Your task to perform on an android device: turn off data saver in the chrome app Image 0: 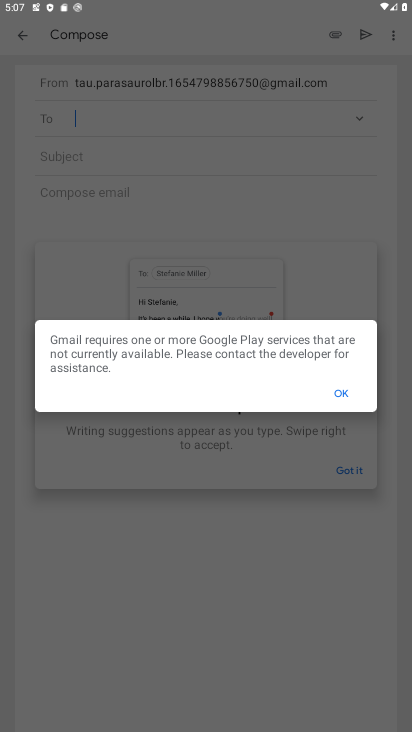
Step 0: press home button
Your task to perform on an android device: turn off data saver in the chrome app Image 1: 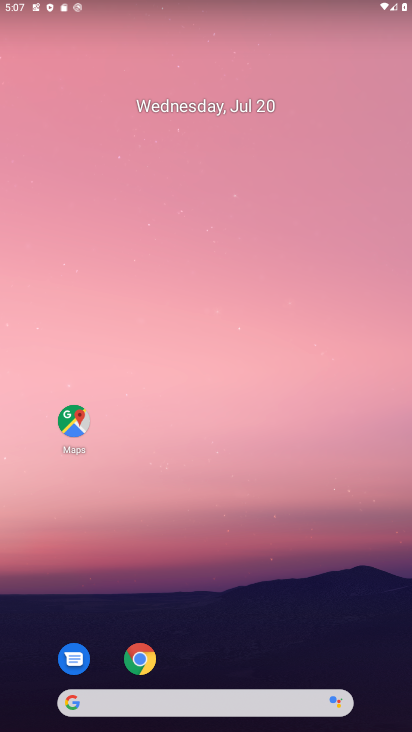
Step 1: click (139, 665)
Your task to perform on an android device: turn off data saver in the chrome app Image 2: 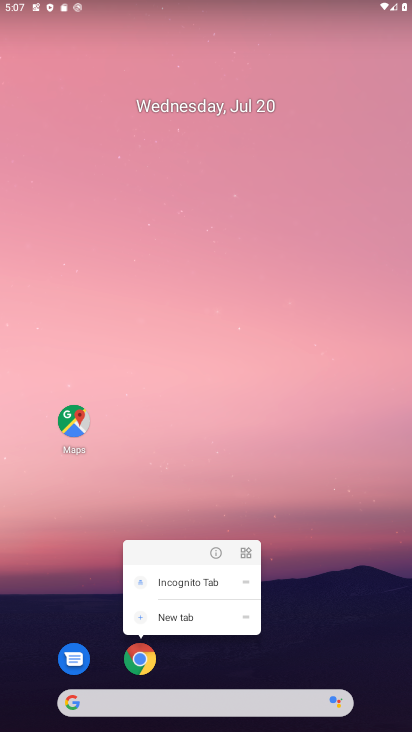
Step 2: click (139, 657)
Your task to perform on an android device: turn off data saver in the chrome app Image 3: 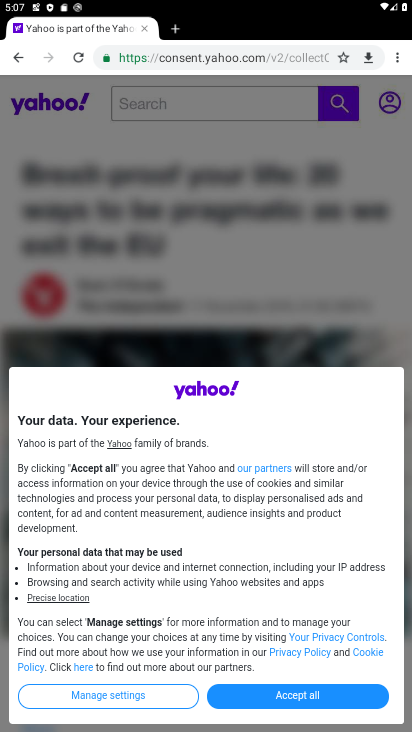
Step 3: click (391, 59)
Your task to perform on an android device: turn off data saver in the chrome app Image 4: 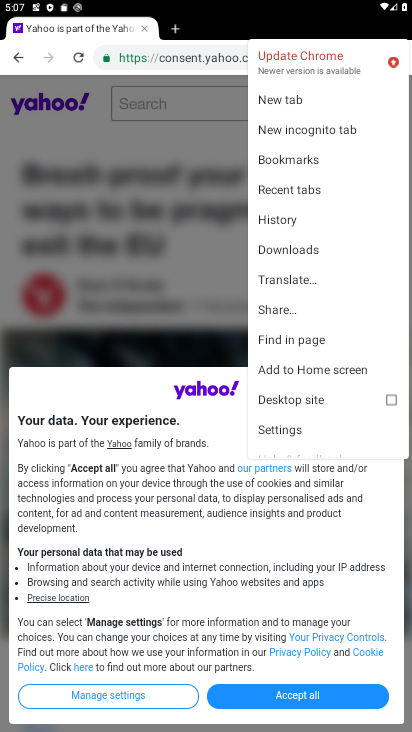
Step 4: click (273, 426)
Your task to perform on an android device: turn off data saver in the chrome app Image 5: 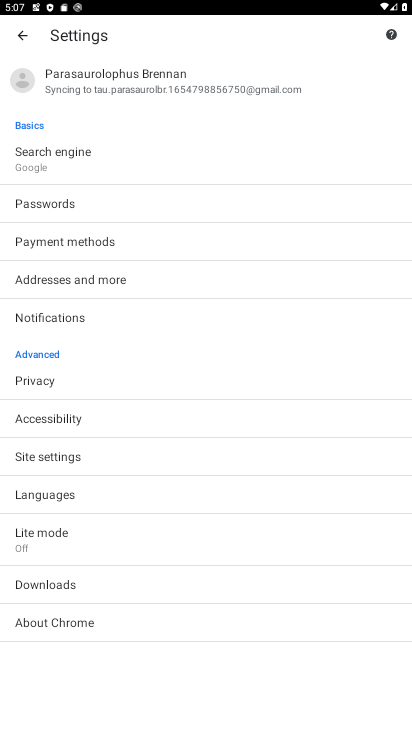
Step 5: click (54, 535)
Your task to perform on an android device: turn off data saver in the chrome app Image 6: 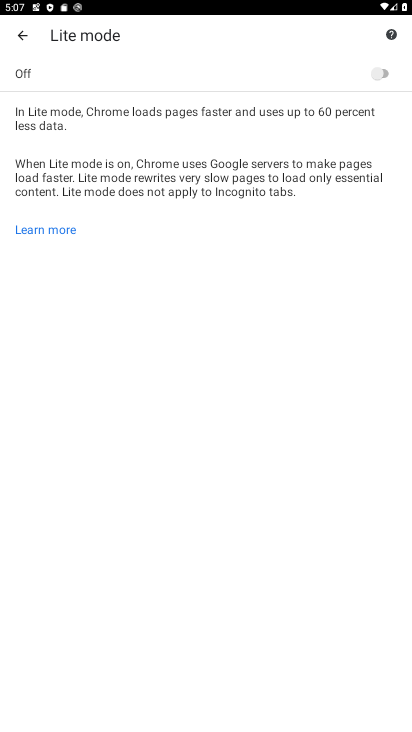
Step 6: task complete